Your task to perform on an android device: delete location history Image 0: 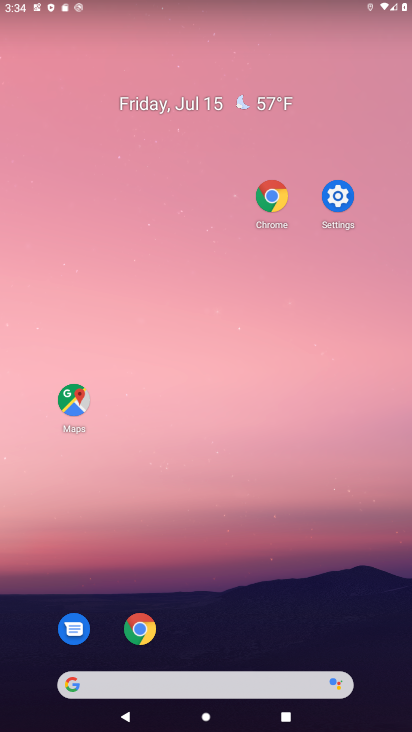
Step 0: drag from (256, 662) to (188, 229)
Your task to perform on an android device: delete location history Image 1: 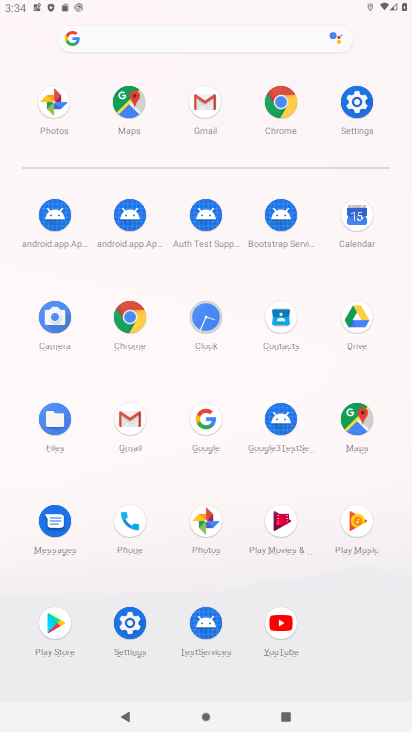
Step 1: click (120, 613)
Your task to perform on an android device: delete location history Image 2: 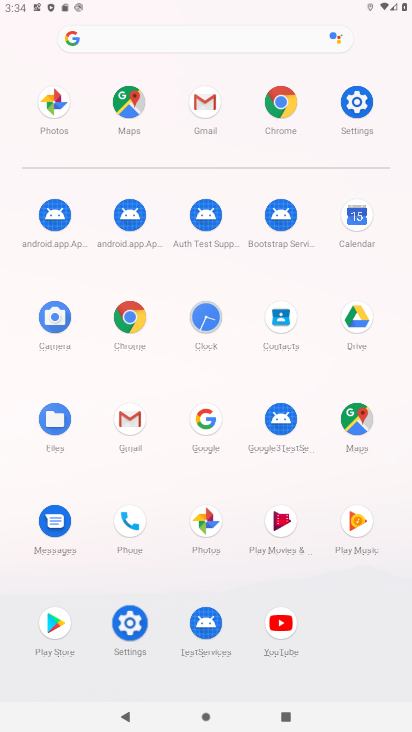
Step 2: click (126, 620)
Your task to perform on an android device: delete location history Image 3: 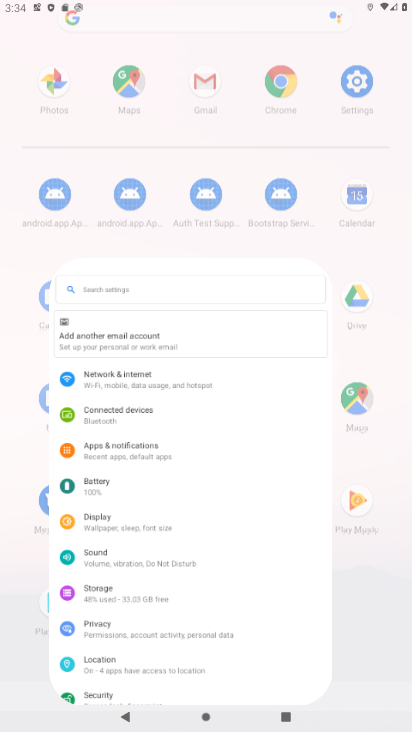
Step 3: click (126, 620)
Your task to perform on an android device: delete location history Image 4: 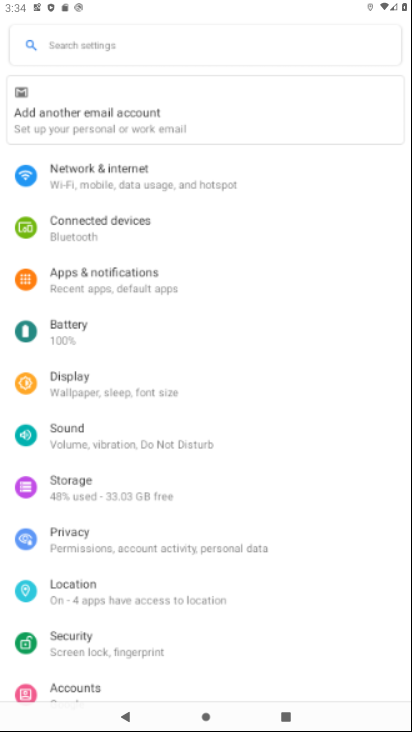
Step 4: click (127, 619)
Your task to perform on an android device: delete location history Image 5: 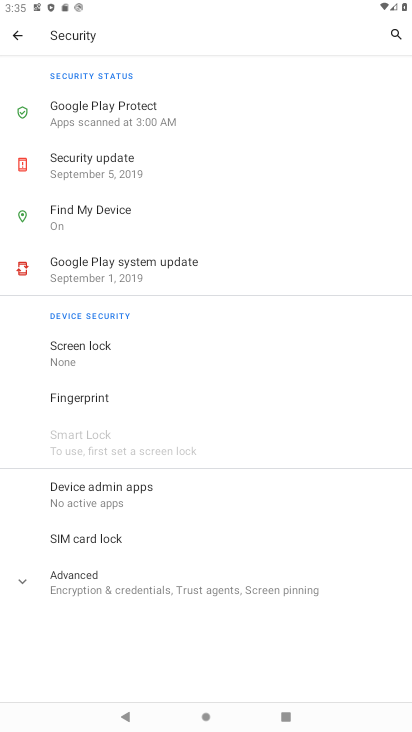
Step 5: click (8, 38)
Your task to perform on an android device: delete location history Image 6: 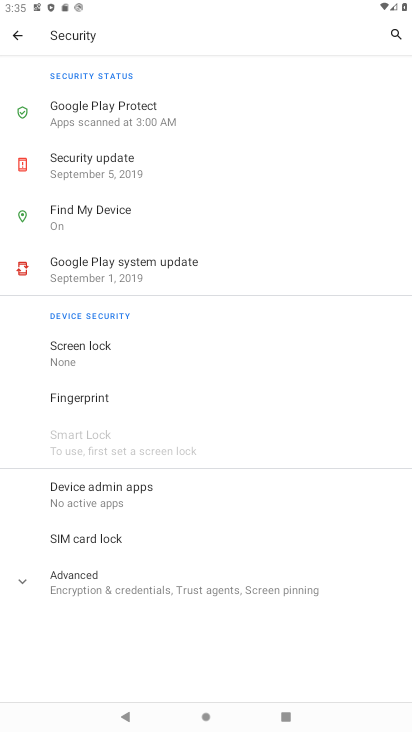
Step 6: click (8, 38)
Your task to perform on an android device: delete location history Image 7: 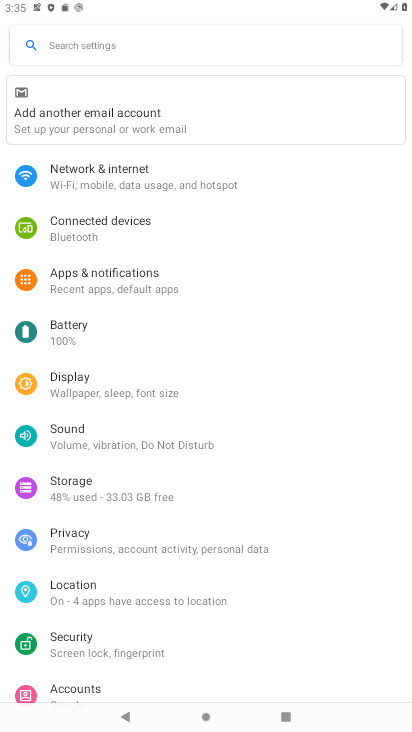
Step 7: click (82, 505)
Your task to perform on an android device: delete location history Image 8: 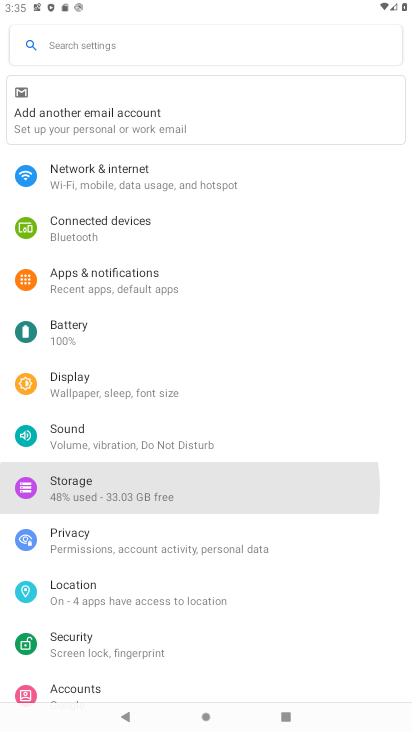
Step 8: click (82, 505)
Your task to perform on an android device: delete location history Image 9: 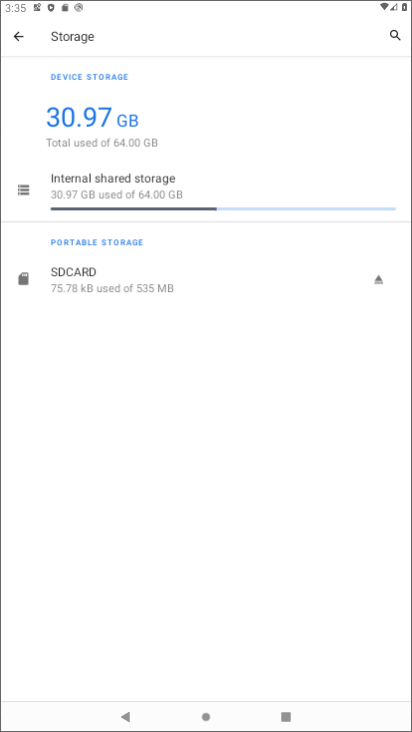
Step 9: click (89, 519)
Your task to perform on an android device: delete location history Image 10: 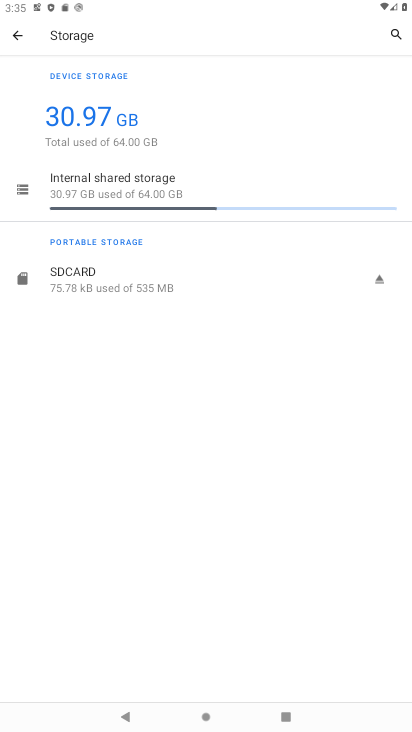
Step 10: click (92, 524)
Your task to perform on an android device: delete location history Image 11: 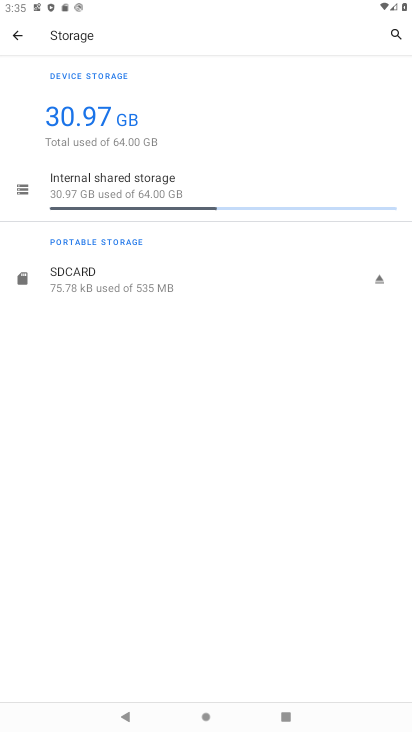
Step 11: click (111, 524)
Your task to perform on an android device: delete location history Image 12: 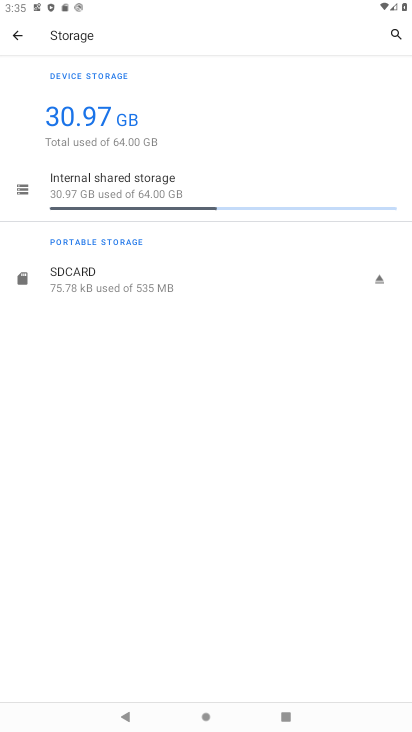
Step 12: click (116, 520)
Your task to perform on an android device: delete location history Image 13: 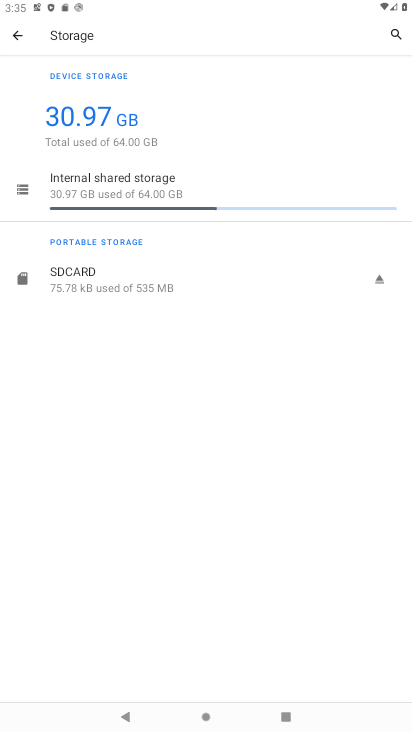
Step 13: click (117, 520)
Your task to perform on an android device: delete location history Image 14: 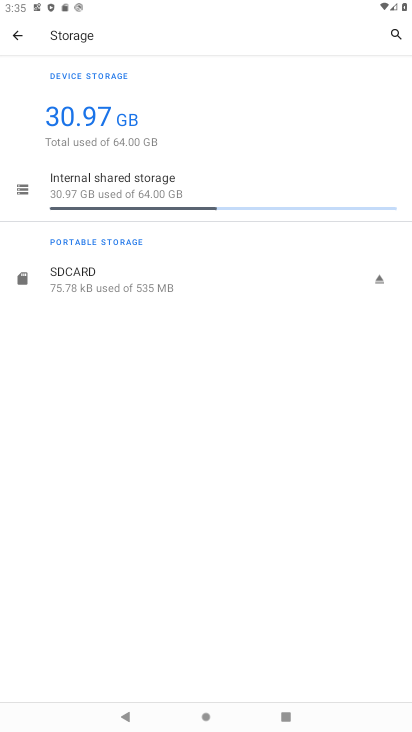
Step 14: click (16, 31)
Your task to perform on an android device: delete location history Image 15: 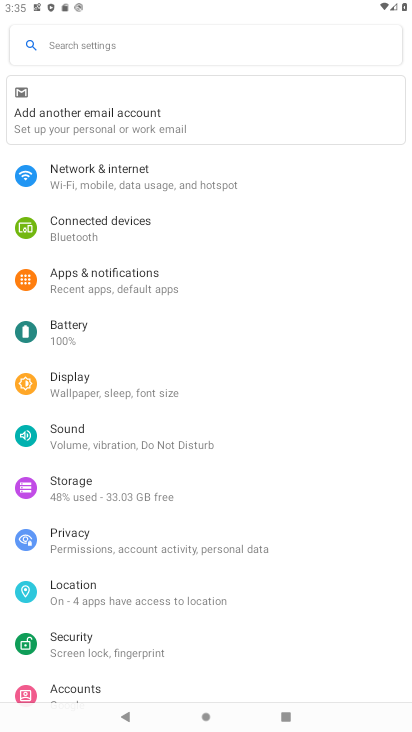
Step 15: click (85, 582)
Your task to perform on an android device: delete location history Image 16: 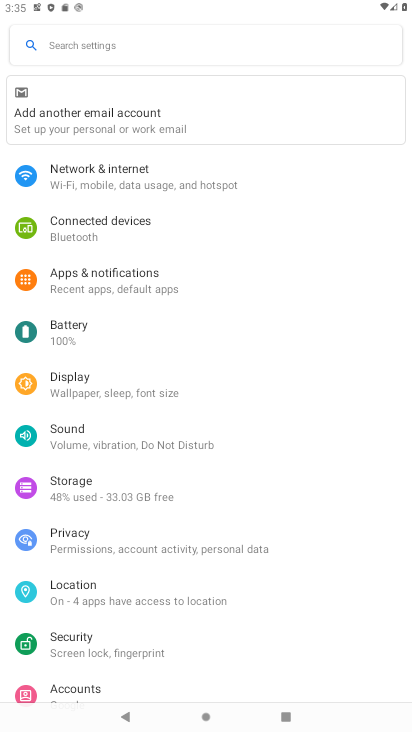
Step 16: click (85, 597)
Your task to perform on an android device: delete location history Image 17: 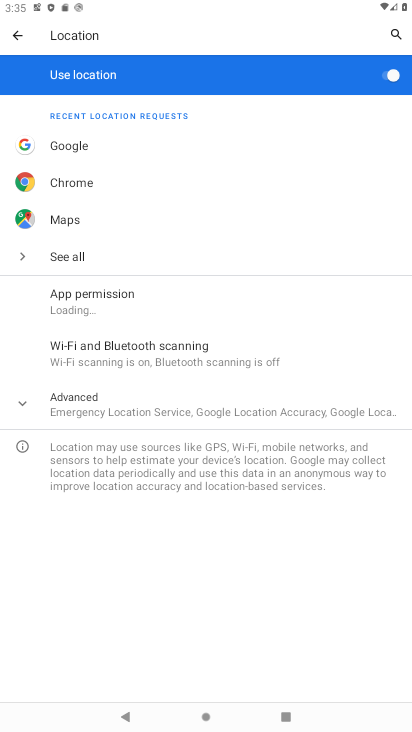
Step 17: click (92, 408)
Your task to perform on an android device: delete location history Image 18: 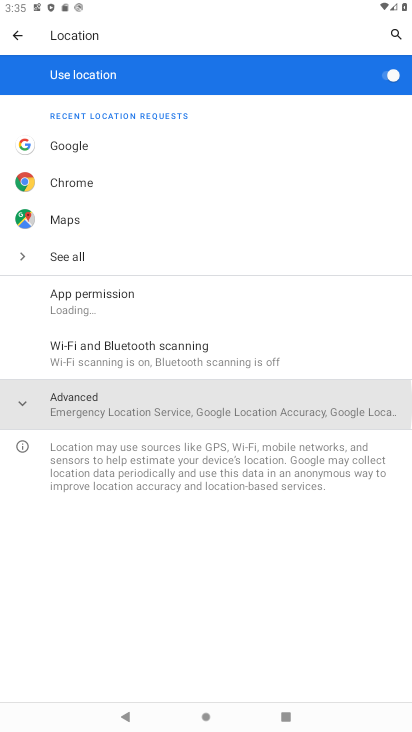
Step 18: click (92, 408)
Your task to perform on an android device: delete location history Image 19: 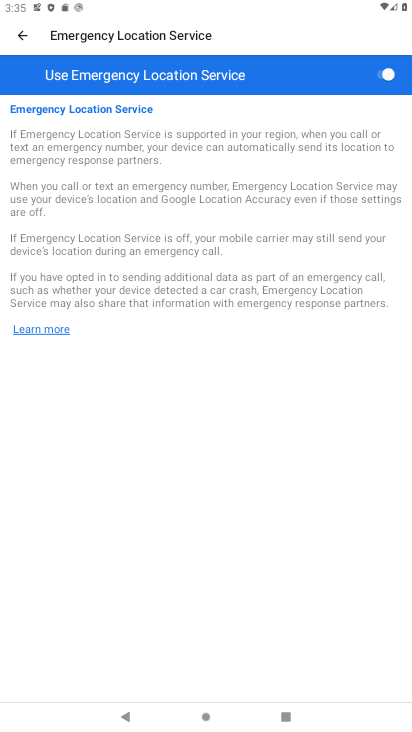
Step 19: click (25, 15)
Your task to perform on an android device: delete location history Image 20: 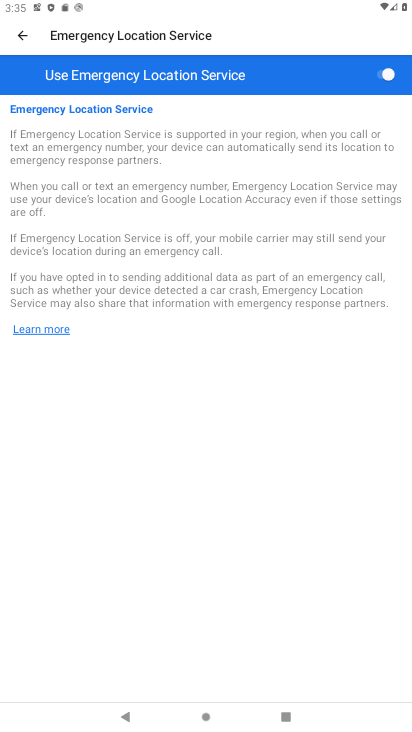
Step 20: click (17, 32)
Your task to perform on an android device: delete location history Image 21: 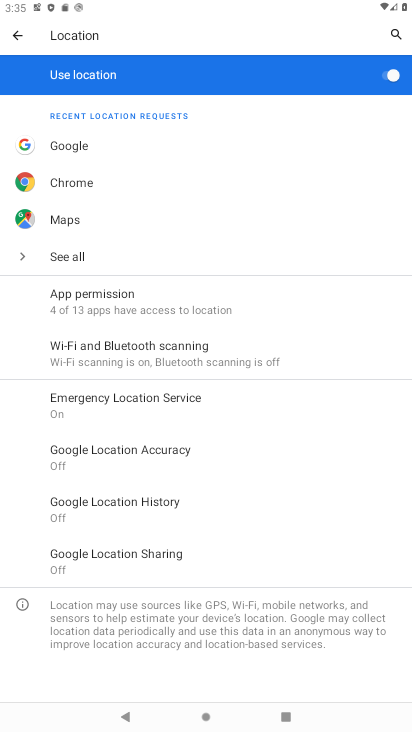
Step 21: click (92, 504)
Your task to perform on an android device: delete location history Image 22: 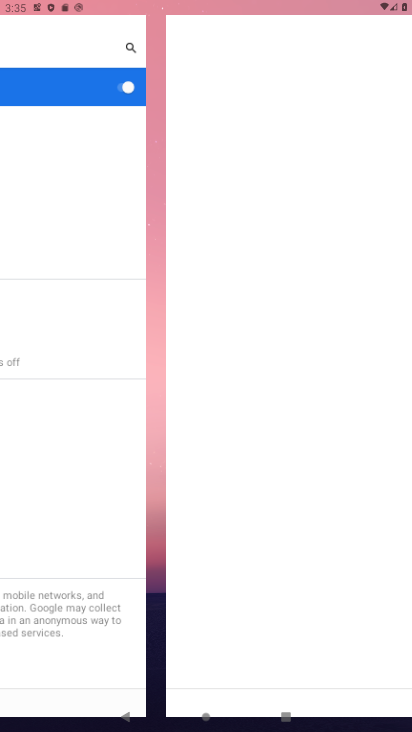
Step 22: click (99, 498)
Your task to perform on an android device: delete location history Image 23: 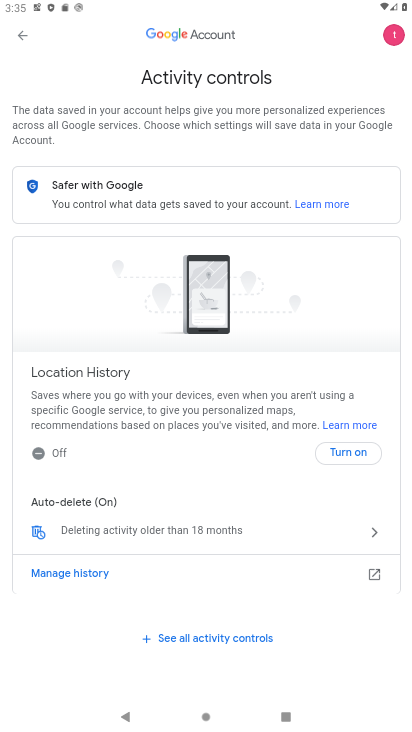
Step 23: click (73, 526)
Your task to perform on an android device: delete location history Image 24: 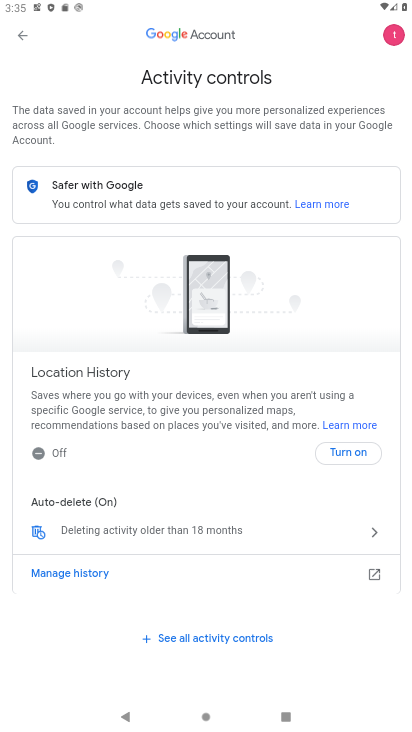
Step 24: click (73, 526)
Your task to perform on an android device: delete location history Image 25: 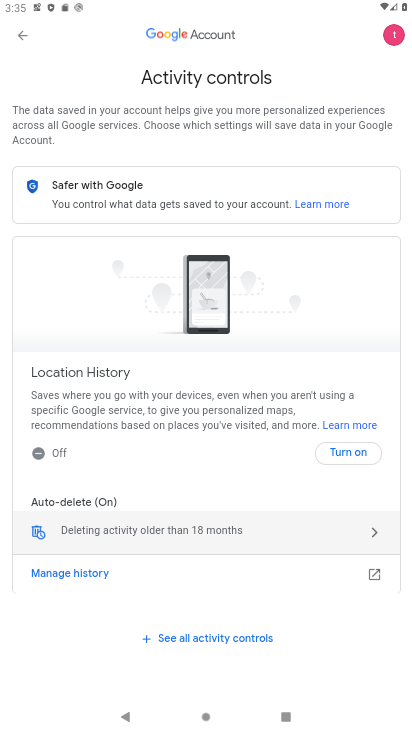
Step 25: click (73, 526)
Your task to perform on an android device: delete location history Image 26: 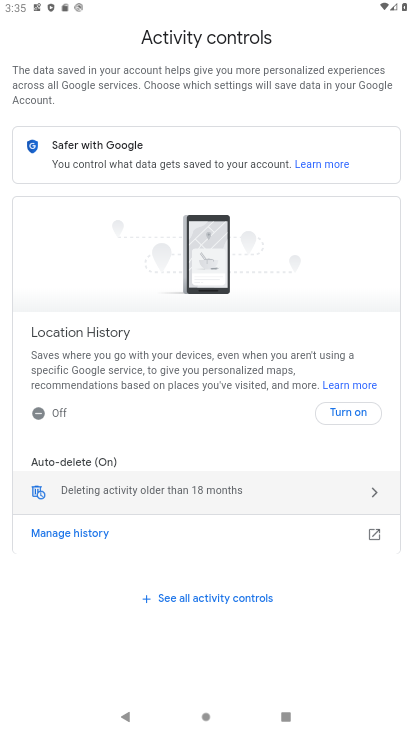
Step 26: task complete